Your task to perform on an android device: Set the phone to "Do not disturb". Image 0: 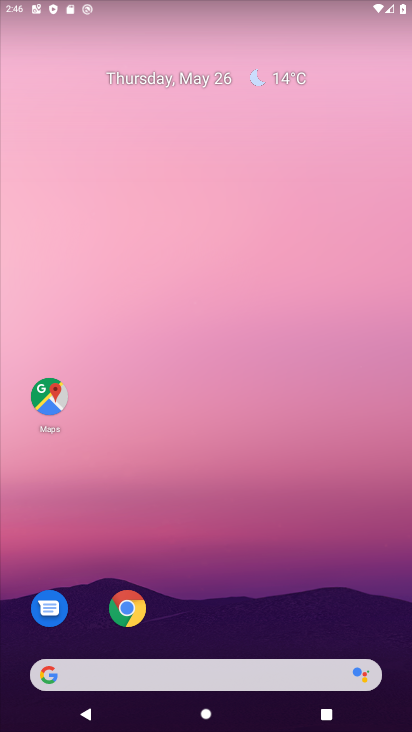
Step 0: drag from (296, 388) to (289, 156)
Your task to perform on an android device: Set the phone to "Do not disturb". Image 1: 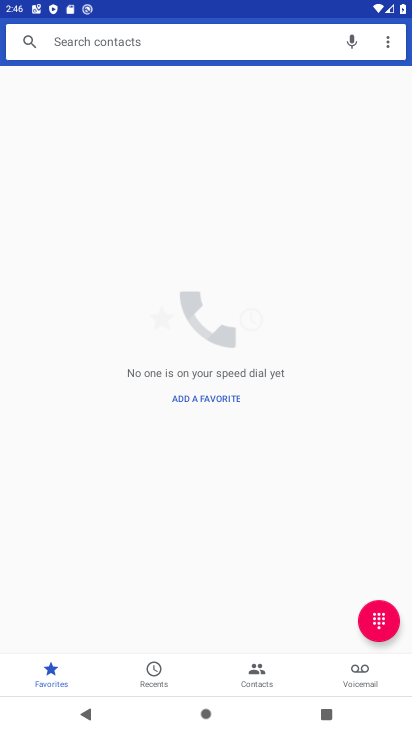
Step 1: press home button
Your task to perform on an android device: Set the phone to "Do not disturb". Image 2: 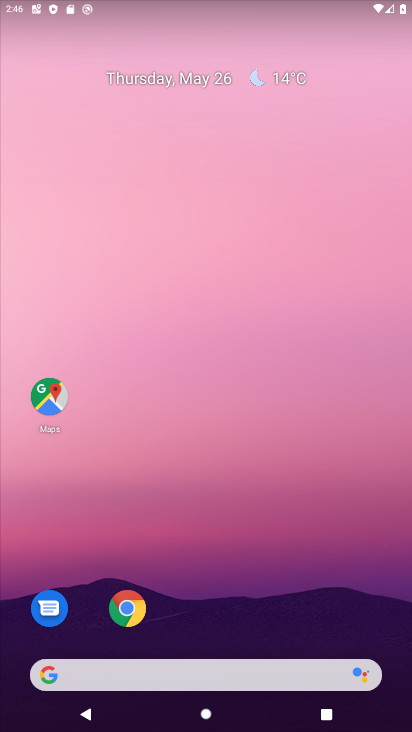
Step 2: drag from (238, 603) to (180, 175)
Your task to perform on an android device: Set the phone to "Do not disturb". Image 3: 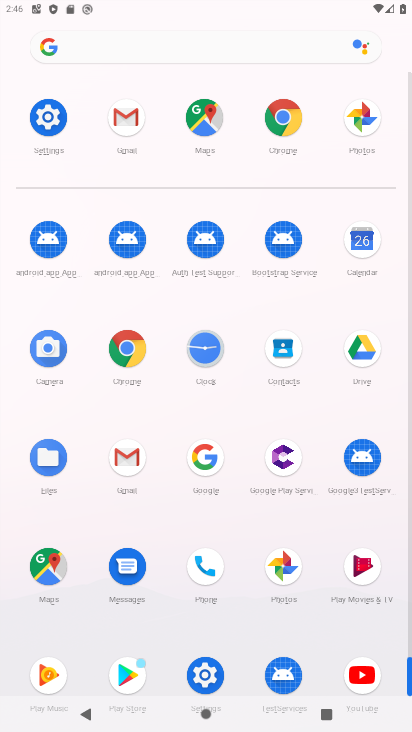
Step 3: click (64, 116)
Your task to perform on an android device: Set the phone to "Do not disturb". Image 4: 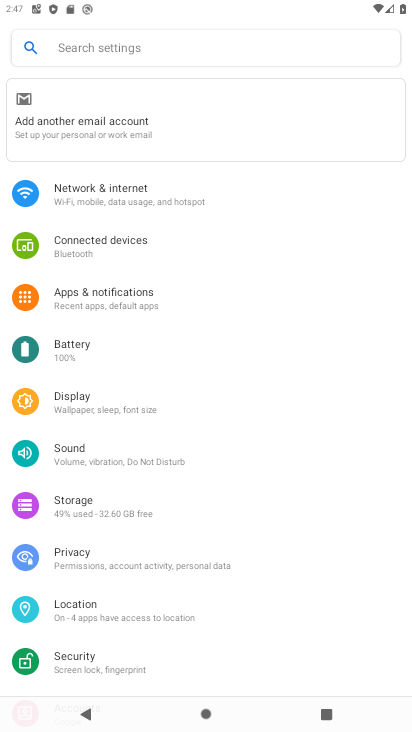
Step 4: click (87, 445)
Your task to perform on an android device: Set the phone to "Do not disturb". Image 5: 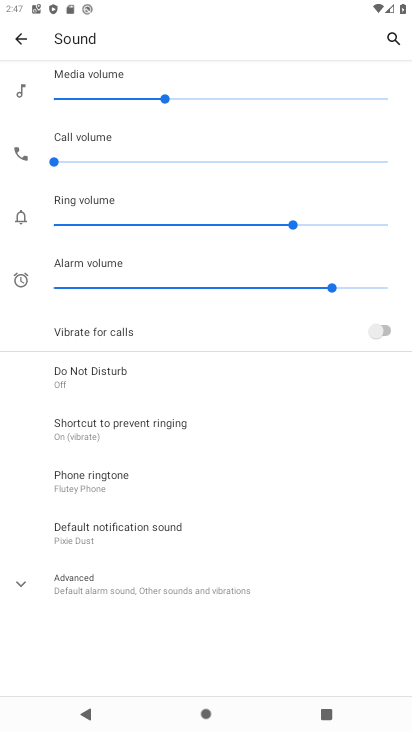
Step 5: click (77, 379)
Your task to perform on an android device: Set the phone to "Do not disturb". Image 6: 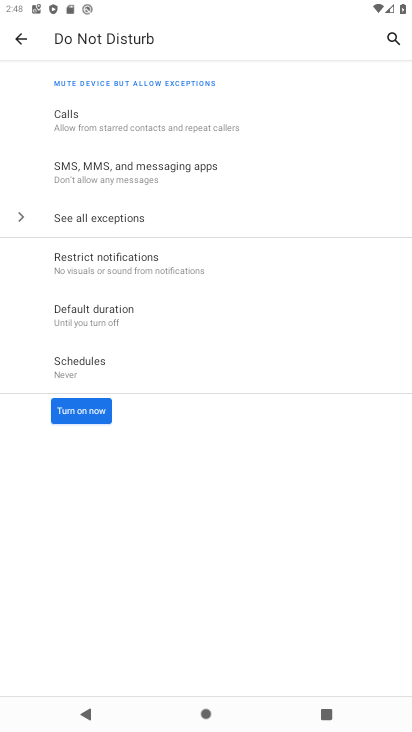
Step 6: click (99, 414)
Your task to perform on an android device: Set the phone to "Do not disturb". Image 7: 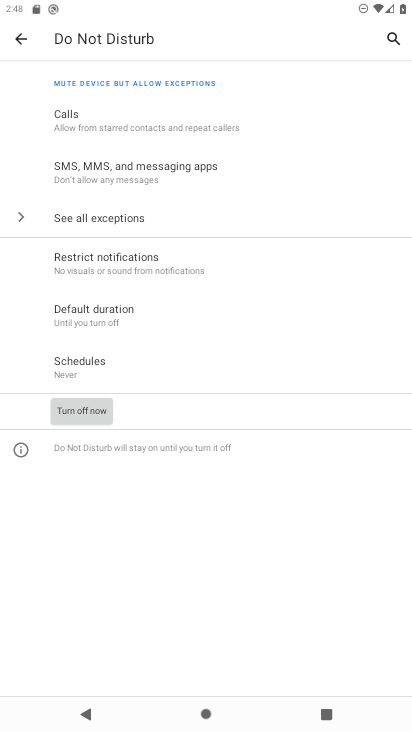
Step 7: task complete